Your task to perform on an android device: change timer sound Image 0: 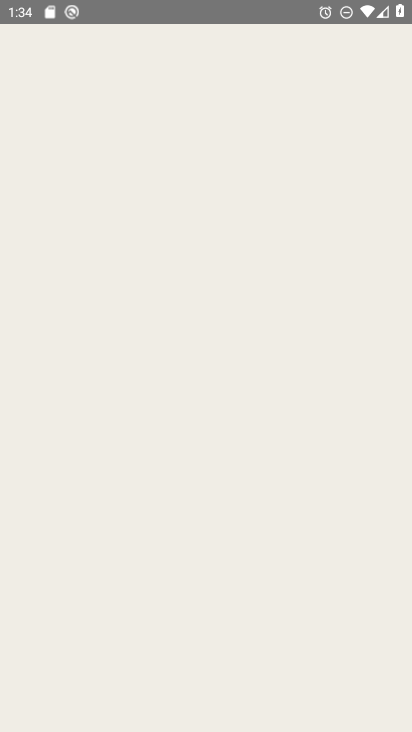
Step 0: press home button
Your task to perform on an android device: change timer sound Image 1: 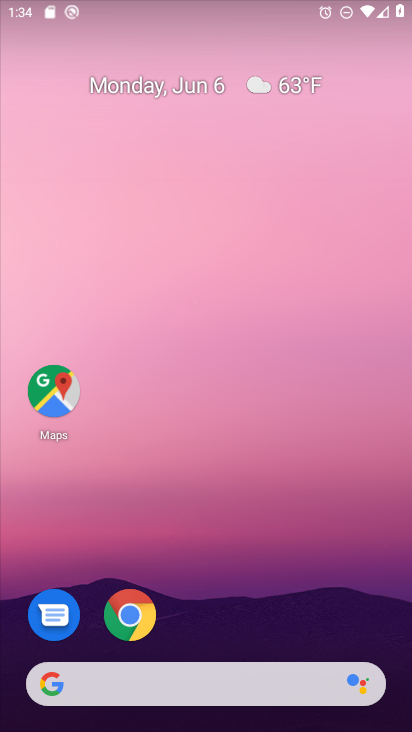
Step 1: drag from (271, 626) to (245, 0)
Your task to perform on an android device: change timer sound Image 2: 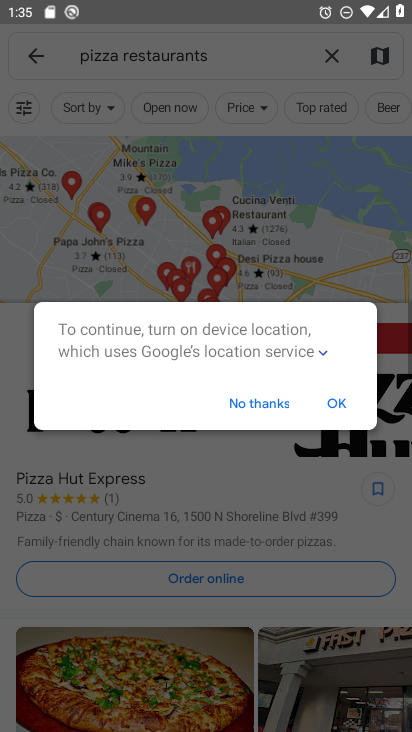
Step 2: press home button
Your task to perform on an android device: change timer sound Image 3: 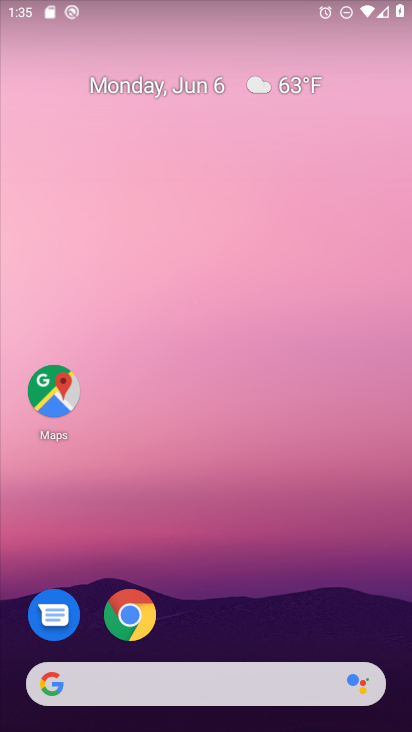
Step 3: drag from (274, 634) to (285, 24)
Your task to perform on an android device: change timer sound Image 4: 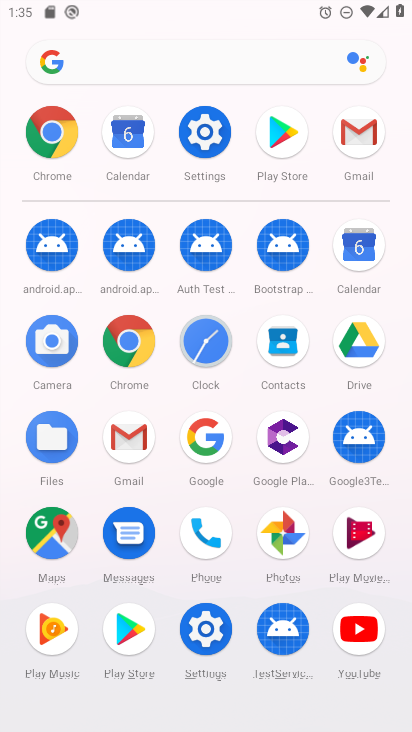
Step 4: click (203, 348)
Your task to perform on an android device: change timer sound Image 5: 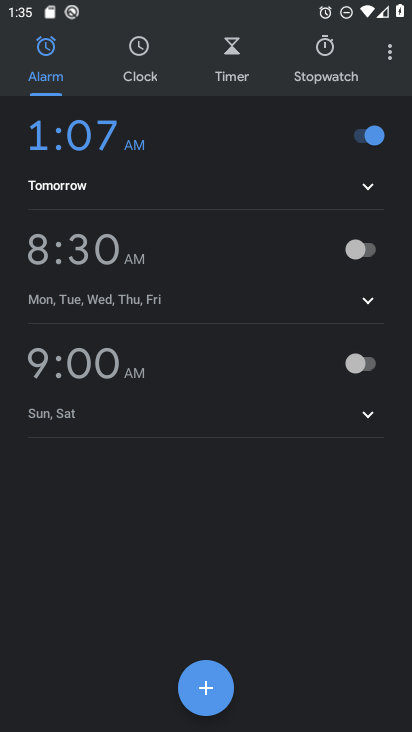
Step 5: click (389, 66)
Your task to perform on an android device: change timer sound Image 6: 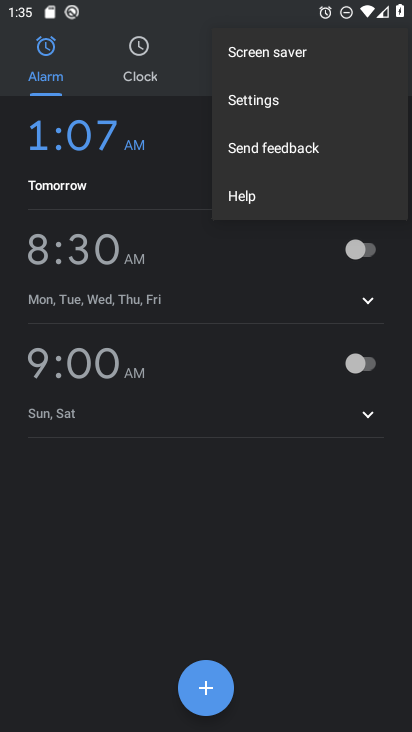
Step 6: click (324, 96)
Your task to perform on an android device: change timer sound Image 7: 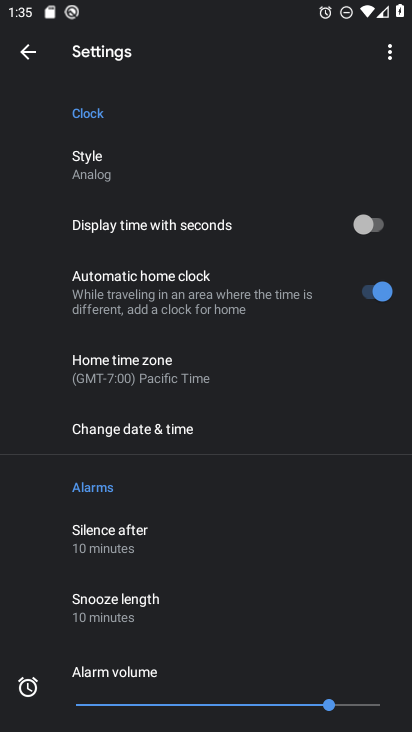
Step 7: drag from (179, 625) to (188, 295)
Your task to perform on an android device: change timer sound Image 8: 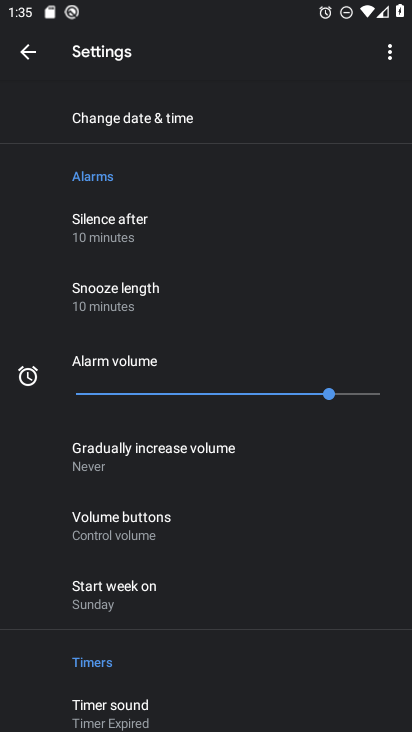
Step 8: drag from (144, 594) to (163, 296)
Your task to perform on an android device: change timer sound Image 9: 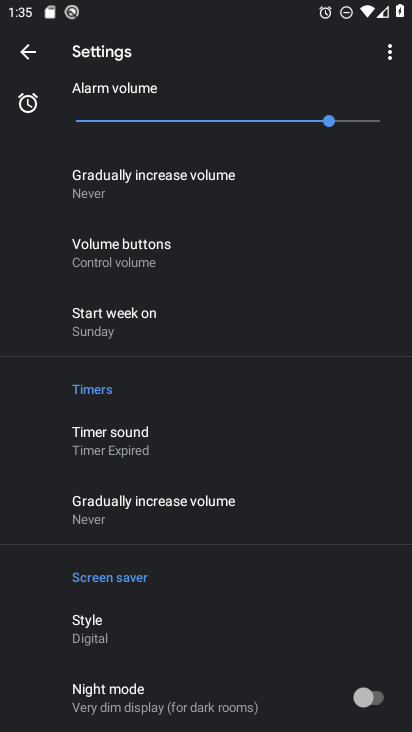
Step 9: click (92, 448)
Your task to perform on an android device: change timer sound Image 10: 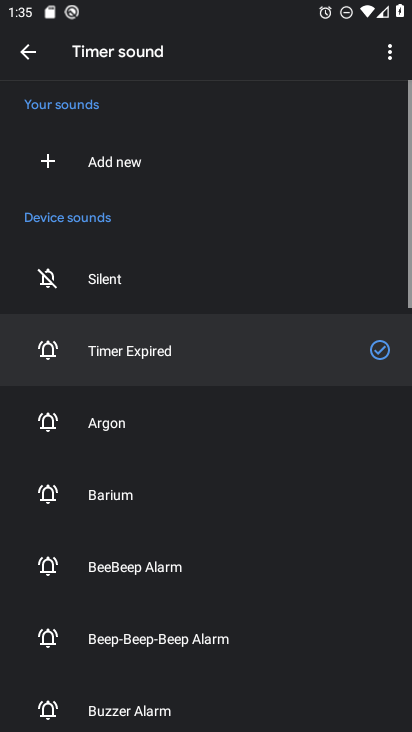
Step 10: click (176, 449)
Your task to perform on an android device: change timer sound Image 11: 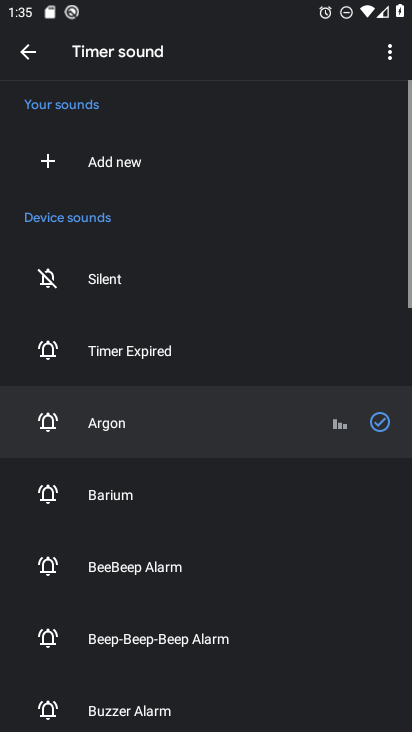
Step 11: task complete